Your task to perform on an android device: toggle priority inbox in the gmail app Image 0: 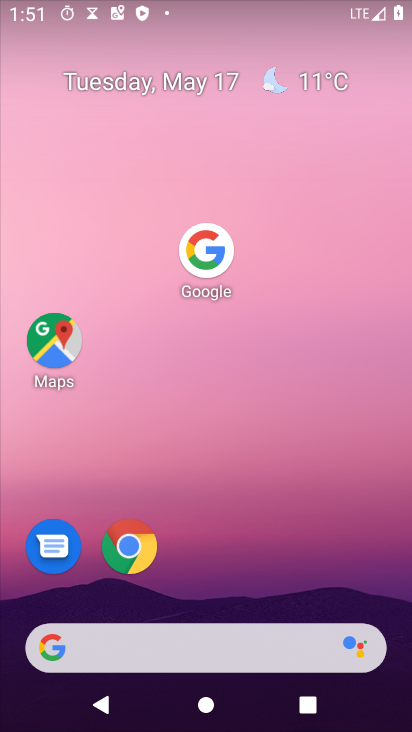
Step 0: press home button
Your task to perform on an android device: toggle priority inbox in the gmail app Image 1: 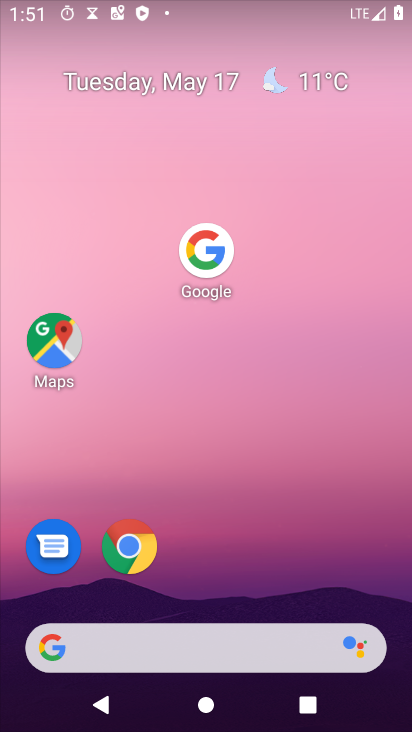
Step 1: drag from (181, 624) to (288, 184)
Your task to perform on an android device: toggle priority inbox in the gmail app Image 2: 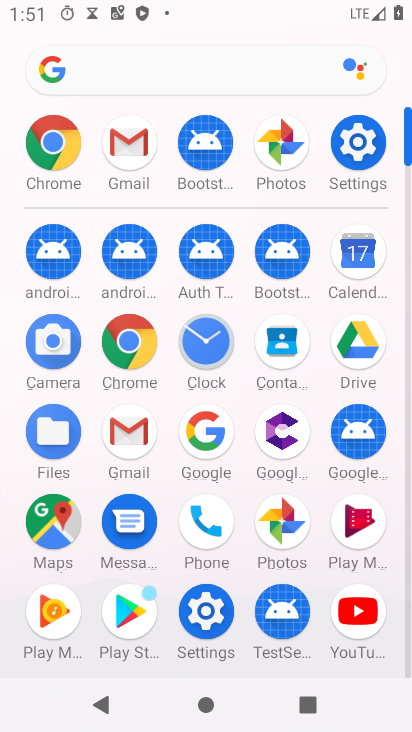
Step 2: click (138, 152)
Your task to perform on an android device: toggle priority inbox in the gmail app Image 3: 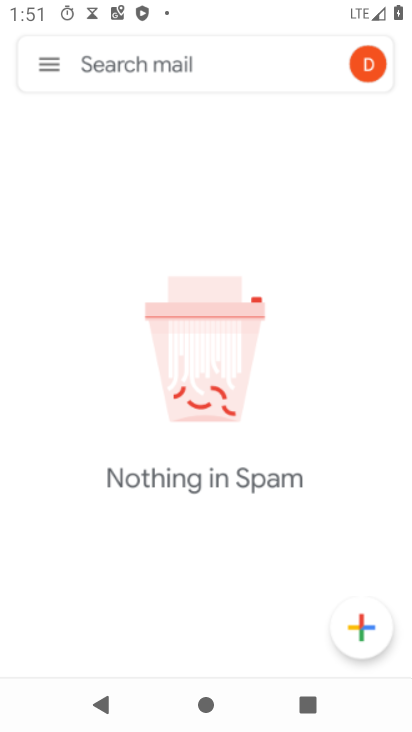
Step 3: click (134, 150)
Your task to perform on an android device: toggle priority inbox in the gmail app Image 4: 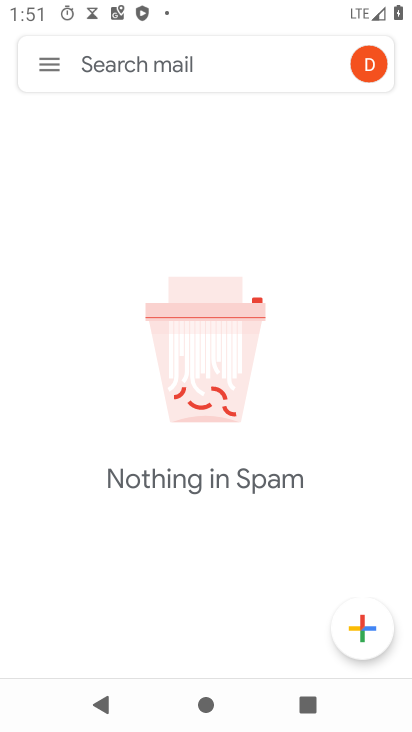
Step 4: click (50, 62)
Your task to perform on an android device: toggle priority inbox in the gmail app Image 5: 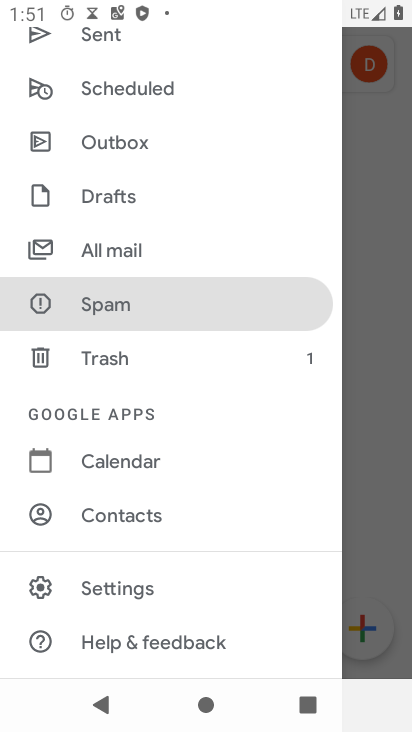
Step 5: drag from (253, 417) to (265, 43)
Your task to perform on an android device: toggle priority inbox in the gmail app Image 6: 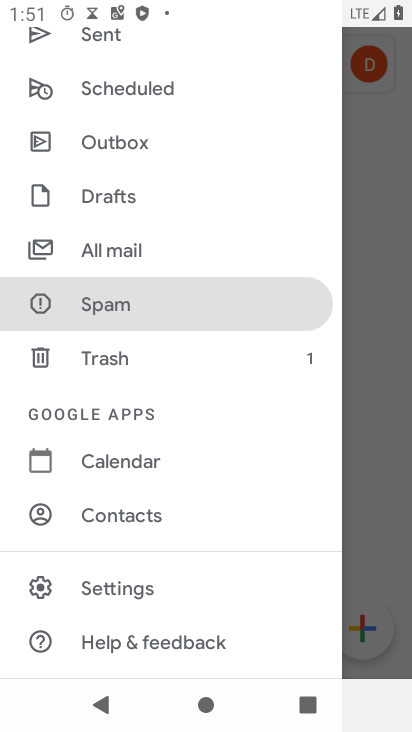
Step 6: click (135, 591)
Your task to perform on an android device: toggle priority inbox in the gmail app Image 7: 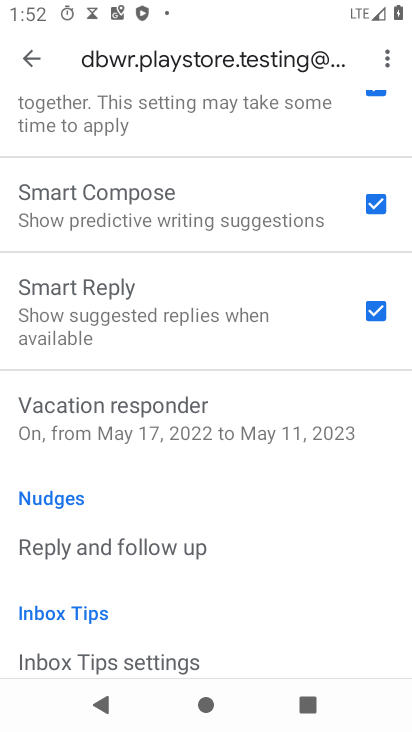
Step 7: drag from (322, 349) to (307, 622)
Your task to perform on an android device: toggle priority inbox in the gmail app Image 8: 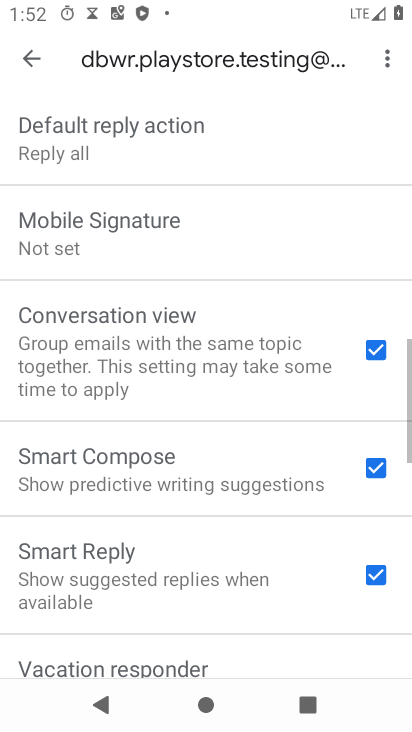
Step 8: drag from (189, 512) to (174, 604)
Your task to perform on an android device: toggle priority inbox in the gmail app Image 9: 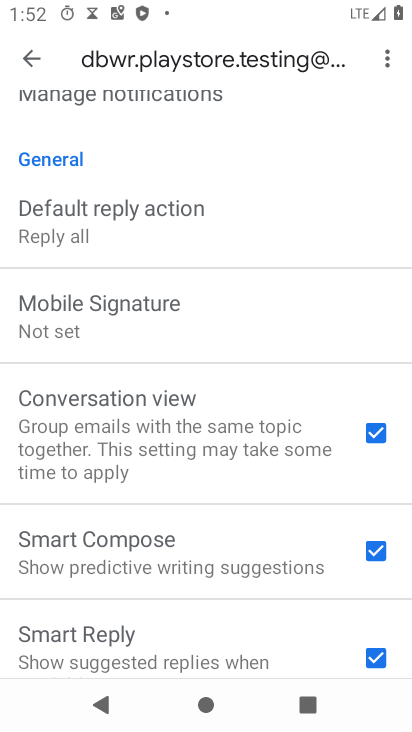
Step 9: drag from (264, 121) to (276, 559)
Your task to perform on an android device: toggle priority inbox in the gmail app Image 10: 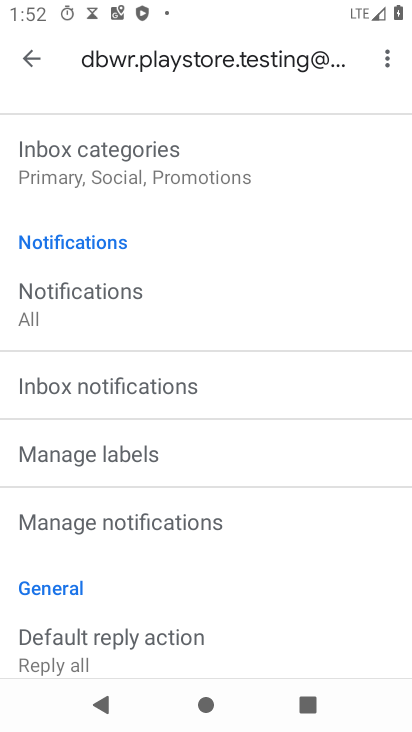
Step 10: drag from (279, 155) to (290, 570)
Your task to perform on an android device: toggle priority inbox in the gmail app Image 11: 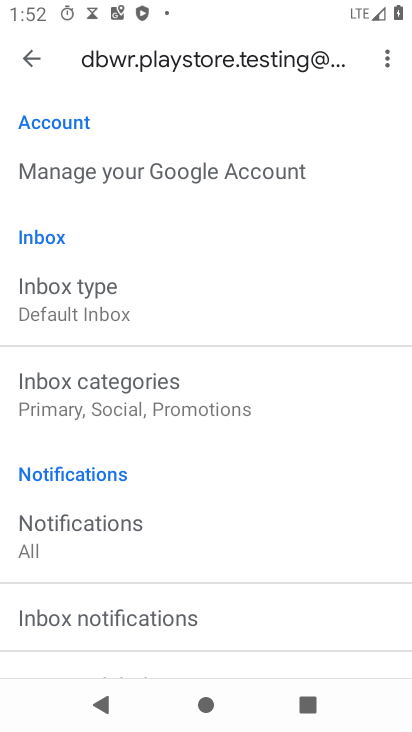
Step 11: click (86, 298)
Your task to perform on an android device: toggle priority inbox in the gmail app Image 12: 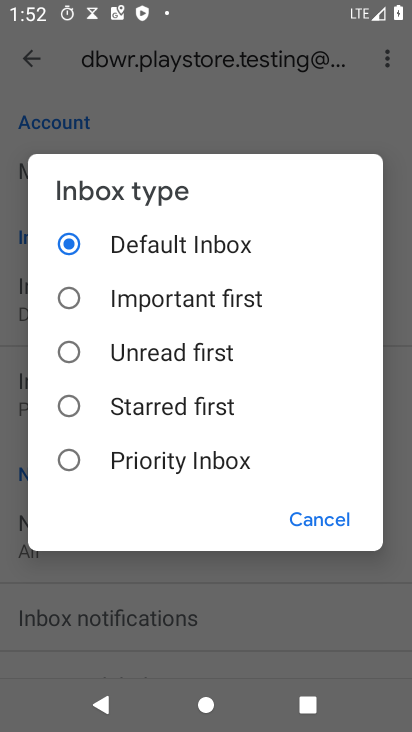
Step 12: click (75, 460)
Your task to perform on an android device: toggle priority inbox in the gmail app Image 13: 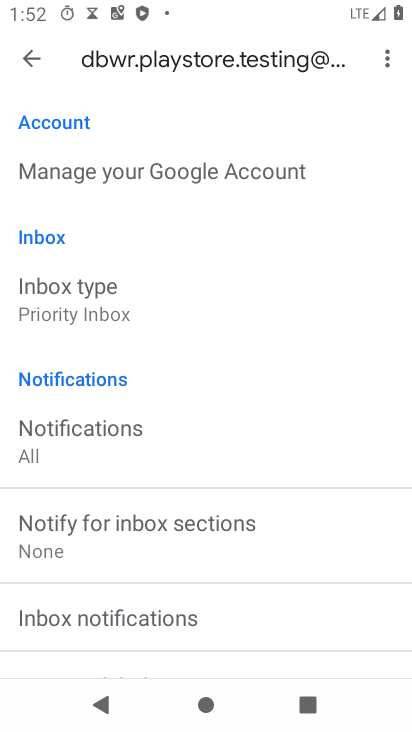
Step 13: task complete